Your task to perform on an android device: see creations saved in the google photos Image 0: 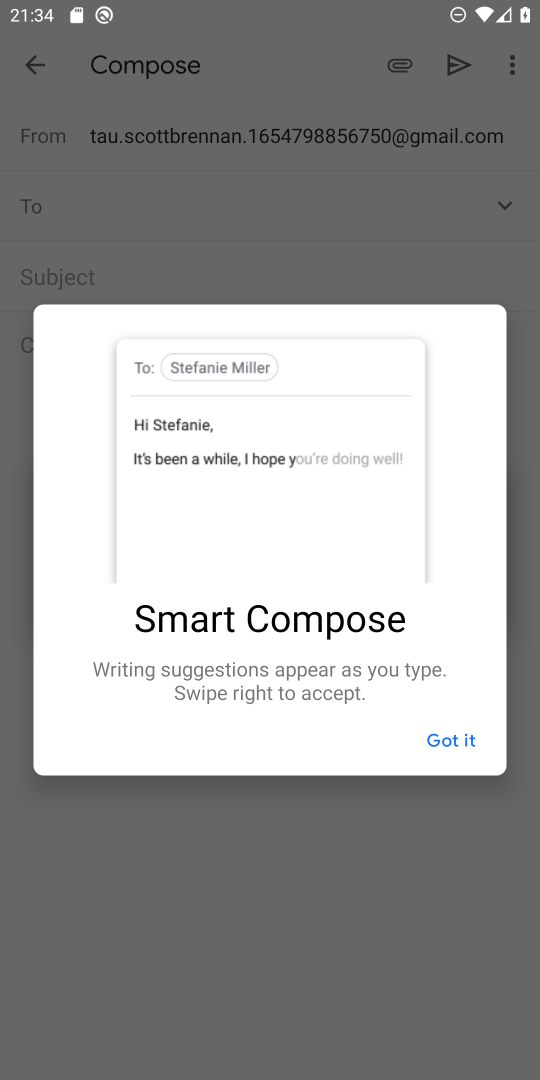
Step 0: press home button
Your task to perform on an android device: see creations saved in the google photos Image 1: 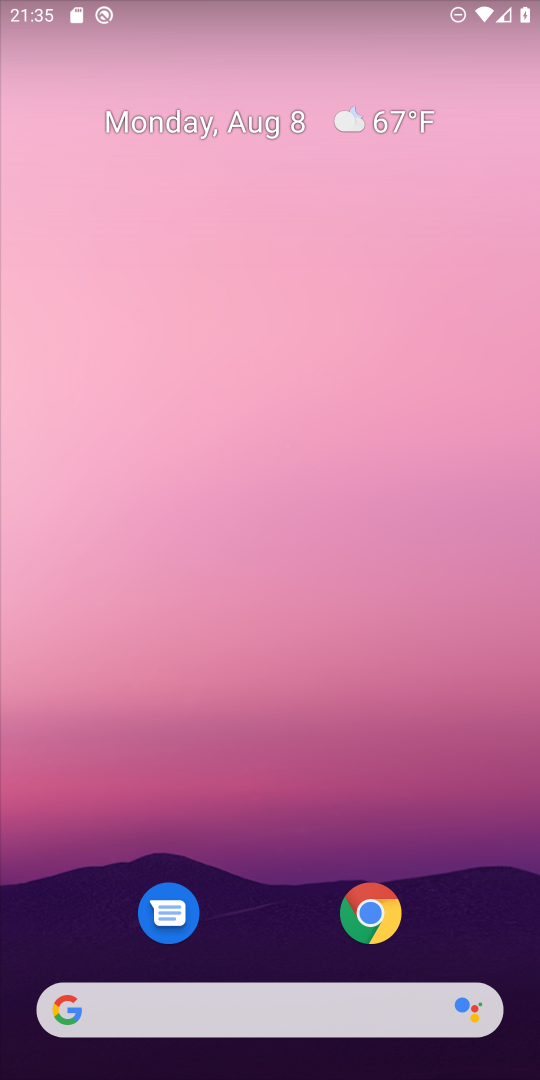
Step 1: drag from (231, 989) to (279, 140)
Your task to perform on an android device: see creations saved in the google photos Image 2: 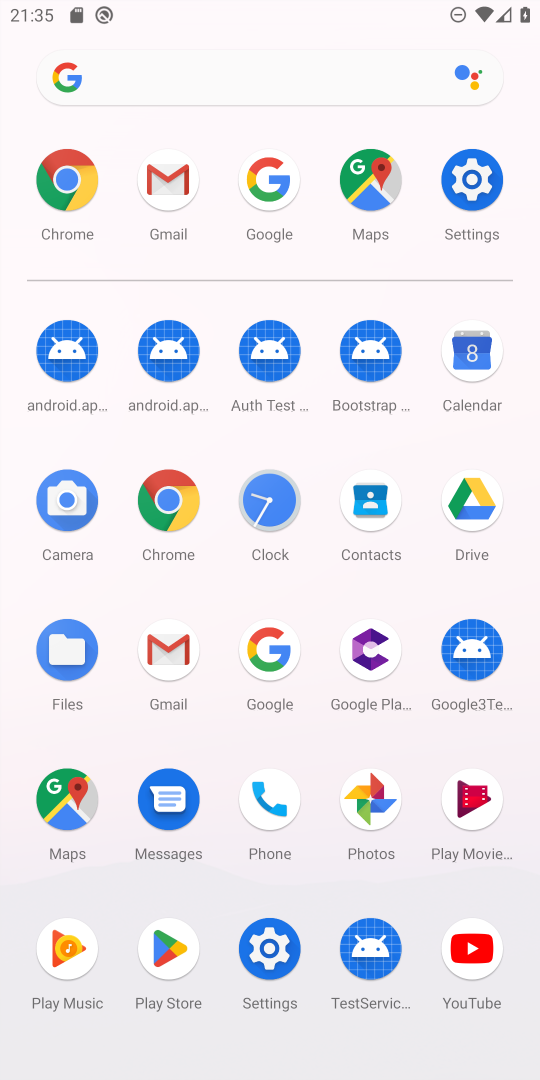
Step 2: click (369, 795)
Your task to perform on an android device: see creations saved in the google photos Image 3: 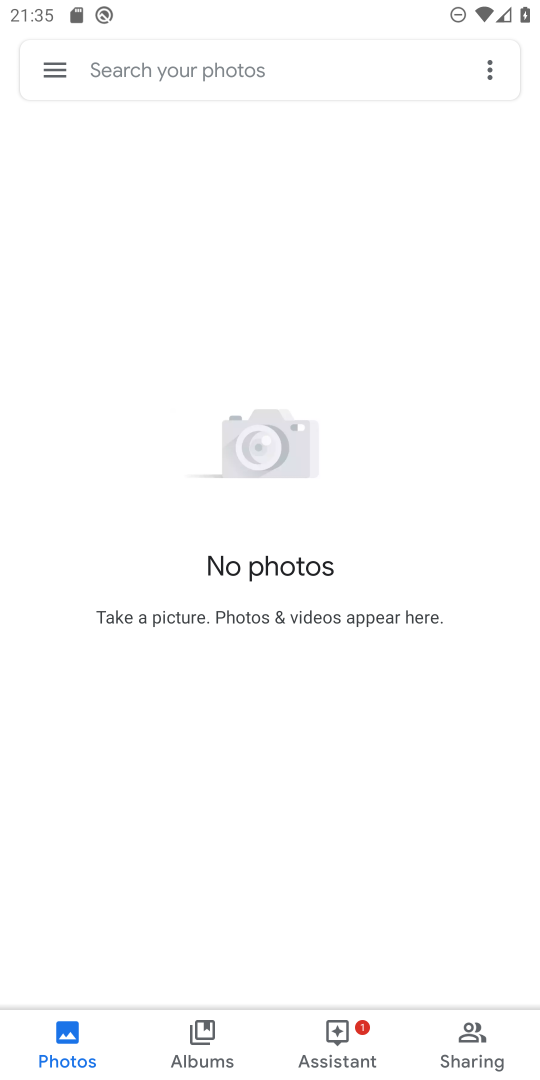
Step 3: click (197, 1026)
Your task to perform on an android device: see creations saved in the google photos Image 4: 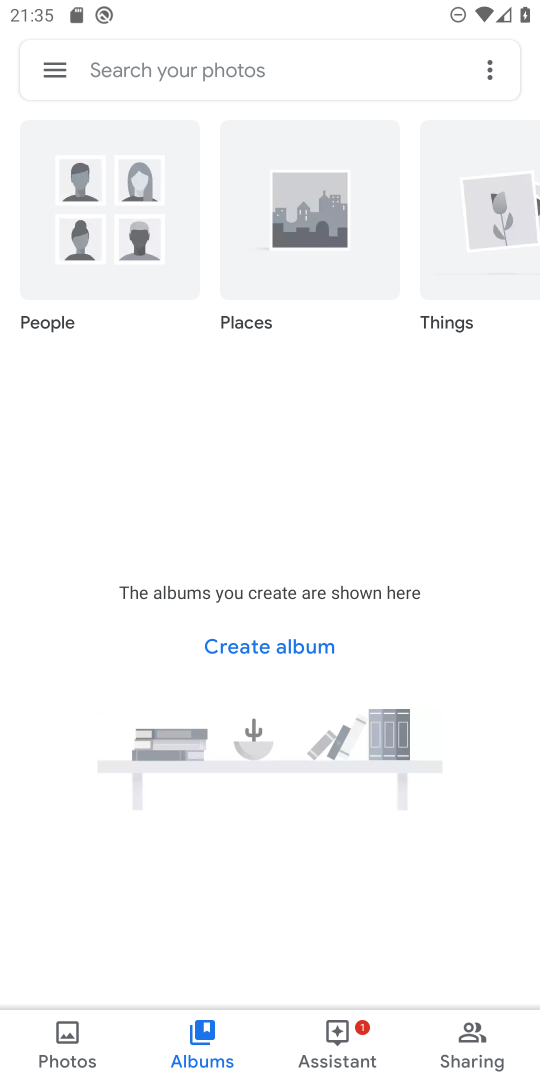
Step 4: click (135, 235)
Your task to perform on an android device: see creations saved in the google photos Image 5: 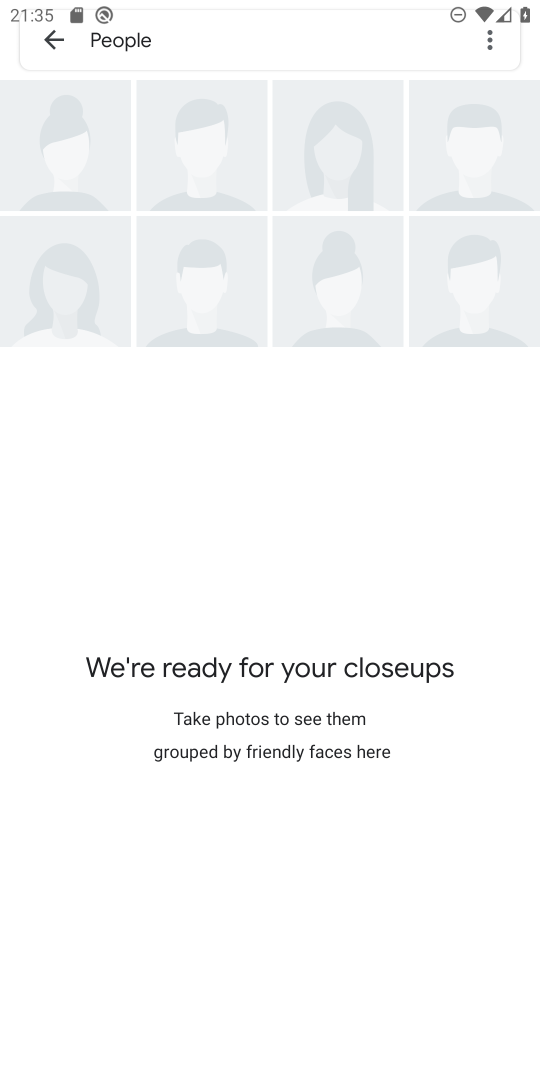
Step 5: task complete